Your task to perform on an android device: Go to location settings Image 0: 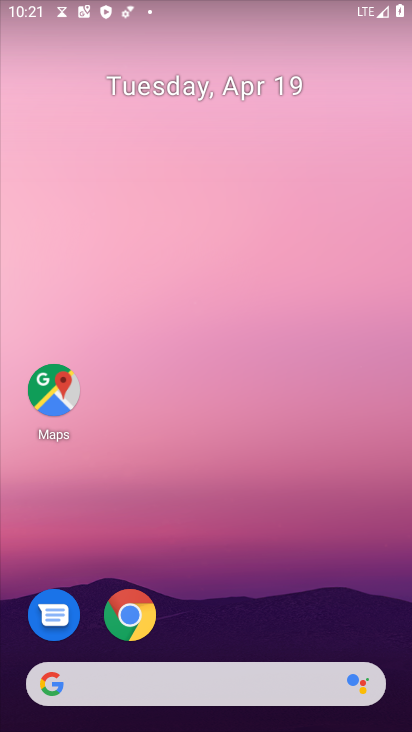
Step 0: click (263, 297)
Your task to perform on an android device: Go to location settings Image 1: 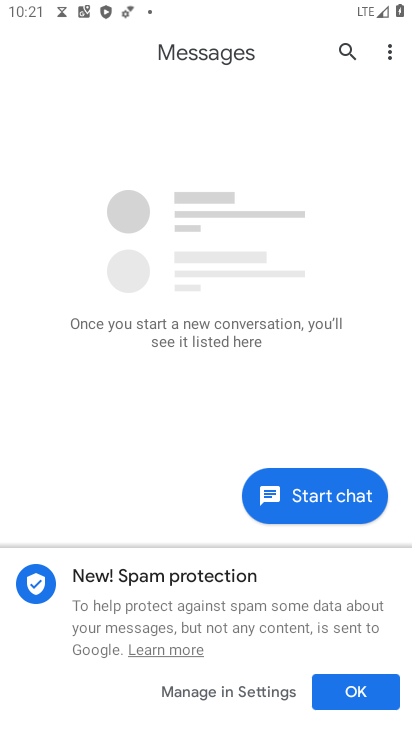
Step 1: drag from (226, 594) to (174, 95)
Your task to perform on an android device: Go to location settings Image 2: 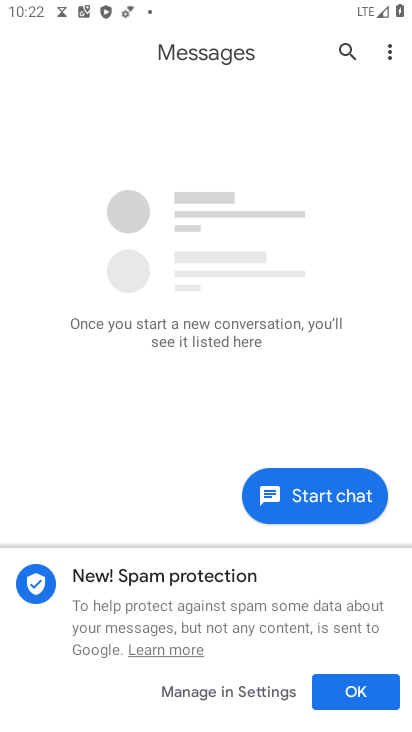
Step 2: press home button
Your task to perform on an android device: Go to location settings Image 3: 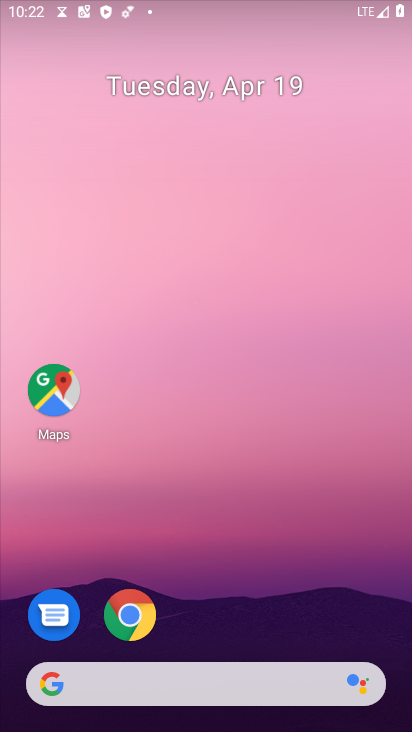
Step 3: drag from (190, 630) to (256, 140)
Your task to perform on an android device: Go to location settings Image 4: 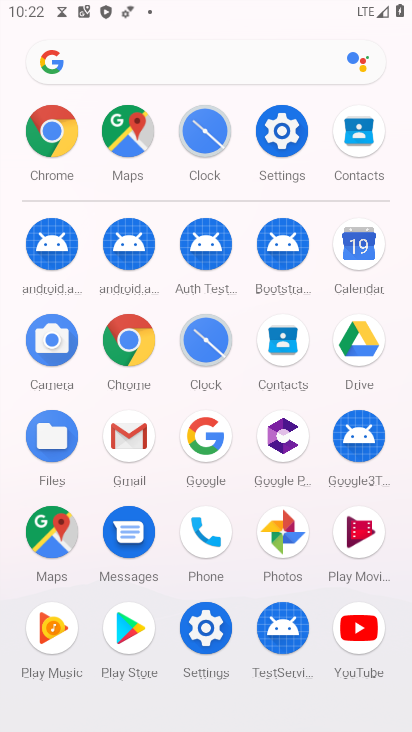
Step 4: click (203, 622)
Your task to perform on an android device: Go to location settings Image 5: 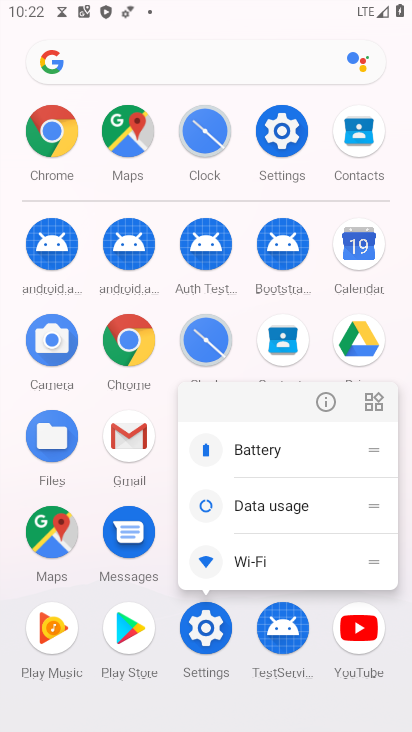
Step 5: click (322, 412)
Your task to perform on an android device: Go to location settings Image 6: 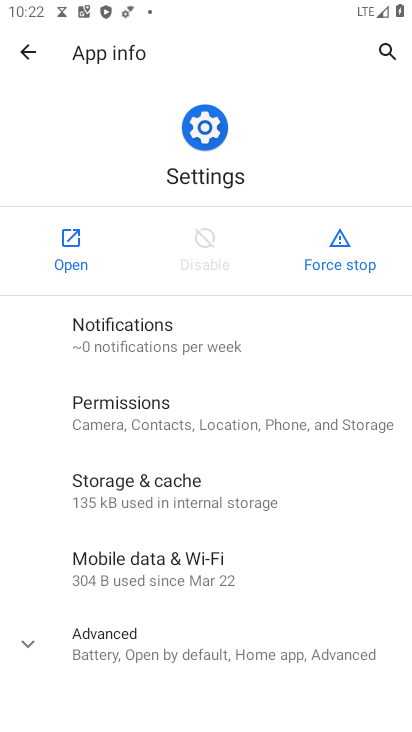
Step 6: click (77, 249)
Your task to perform on an android device: Go to location settings Image 7: 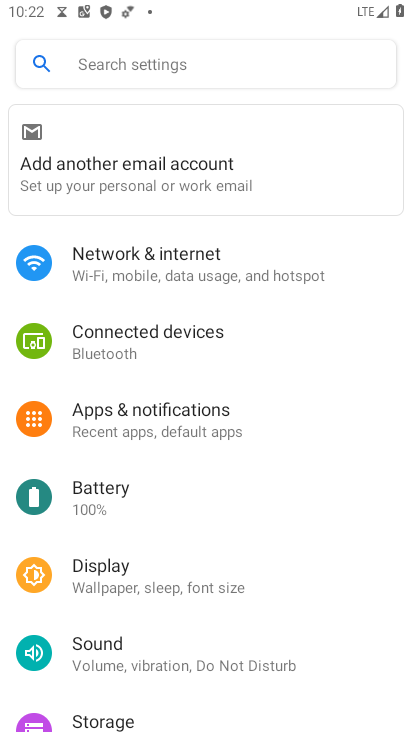
Step 7: drag from (254, 596) to (295, 227)
Your task to perform on an android device: Go to location settings Image 8: 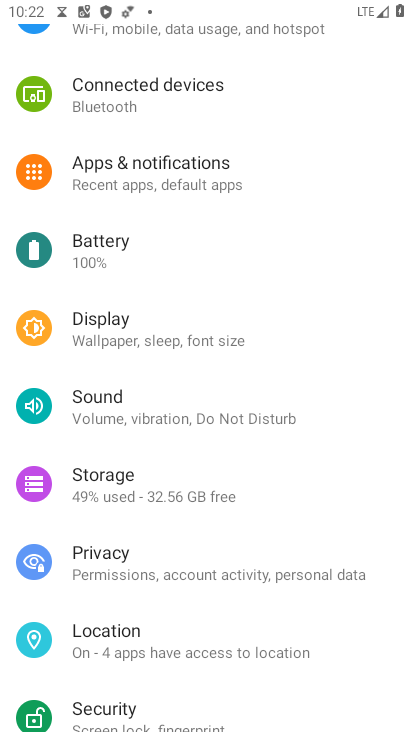
Step 8: click (162, 637)
Your task to perform on an android device: Go to location settings Image 9: 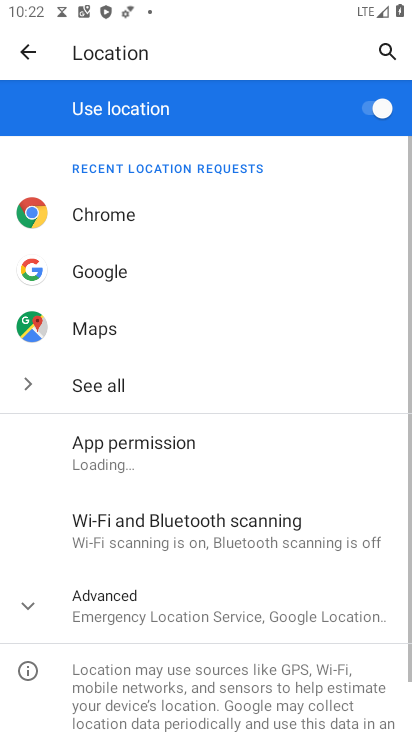
Step 9: drag from (293, 433) to (356, 193)
Your task to perform on an android device: Go to location settings Image 10: 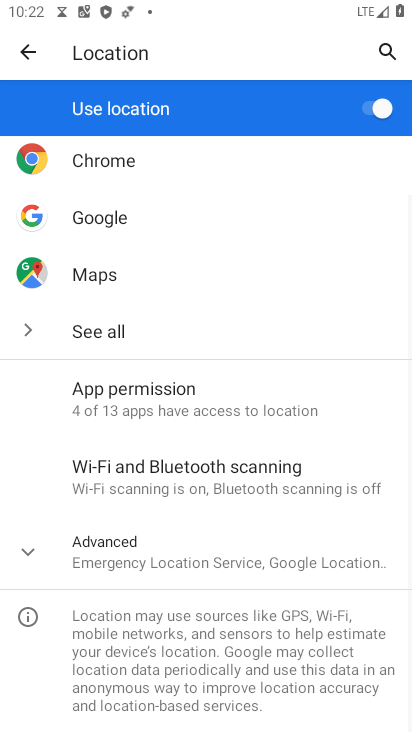
Step 10: click (180, 539)
Your task to perform on an android device: Go to location settings Image 11: 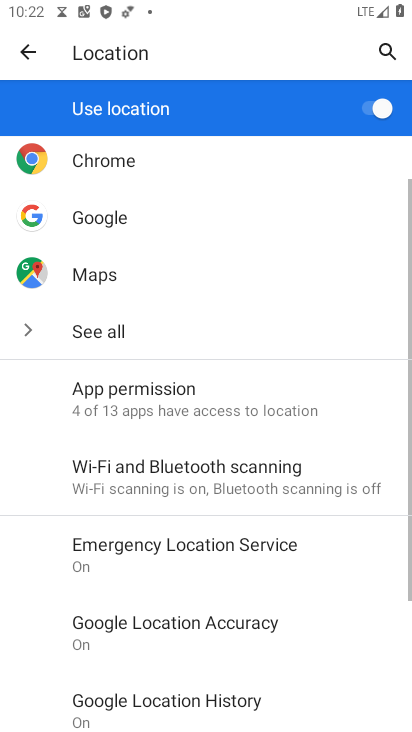
Step 11: drag from (194, 520) to (336, 141)
Your task to perform on an android device: Go to location settings Image 12: 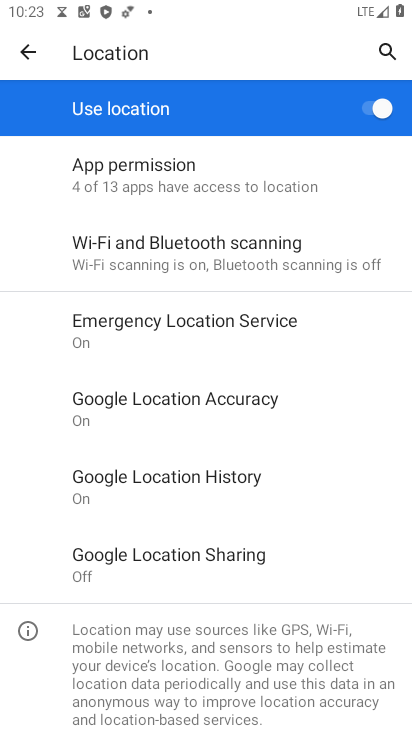
Step 12: click (368, 112)
Your task to perform on an android device: Go to location settings Image 13: 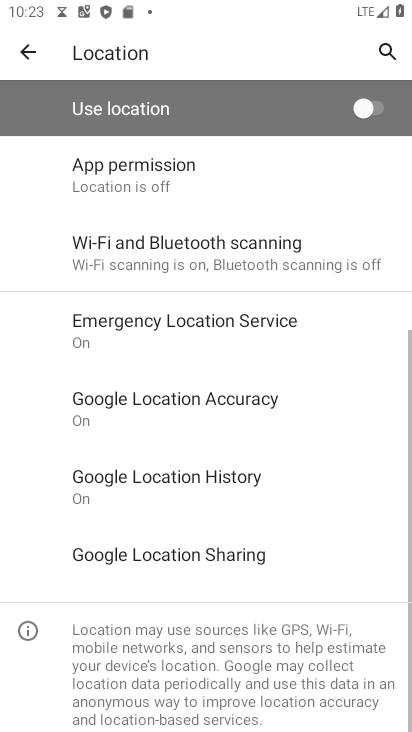
Step 13: task complete